Your task to perform on an android device: Open calendar and show me the second week of next month Image 0: 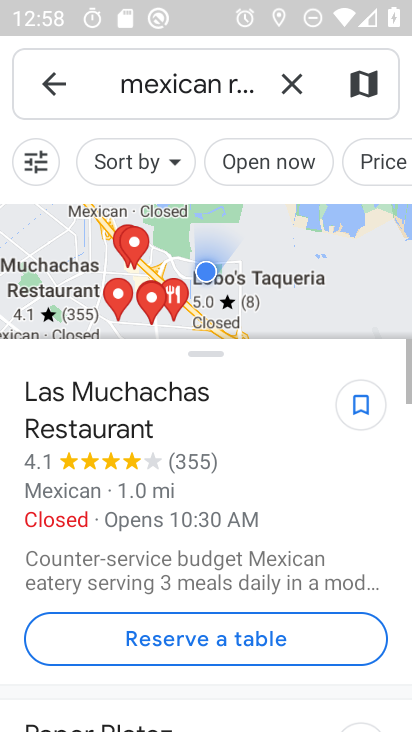
Step 0: drag from (261, 573) to (301, 110)
Your task to perform on an android device: Open calendar and show me the second week of next month Image 1: 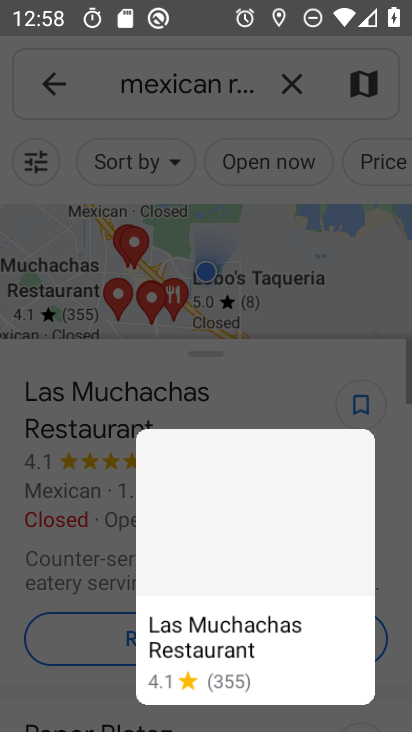
Step 1: press back button
Your task to perform on an android device: Open calendar and show me the second week of next month Image 2: 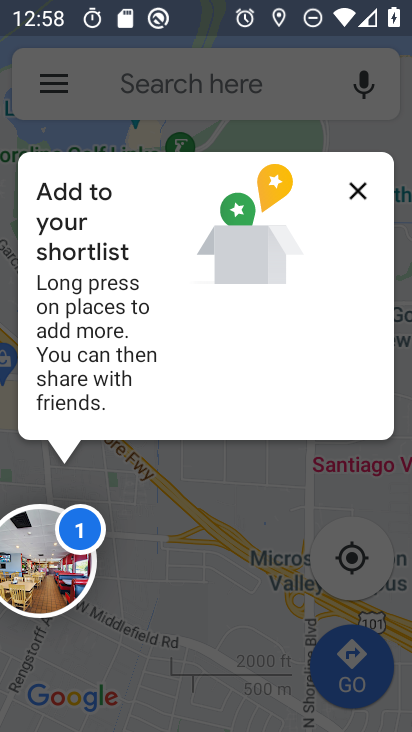
Step 2: press back button
Your task to perform on an android device: Open calendar and show me the second week of next month Image 3: 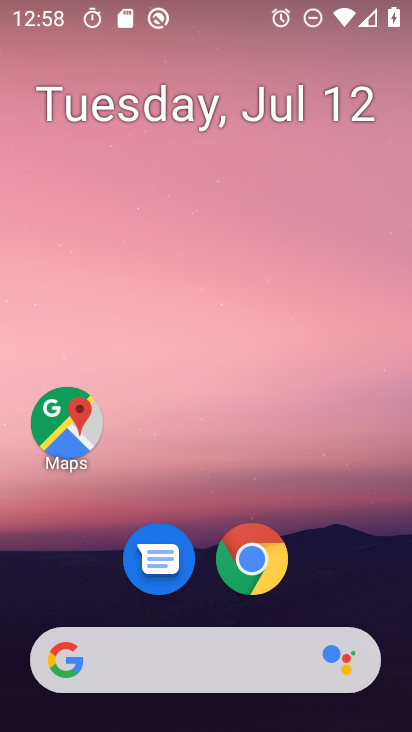
Step 3: drag from (158, 556) to (207, 10)
Your task to perform on an android device: Open calendar and show me the second week of next month Image 4: 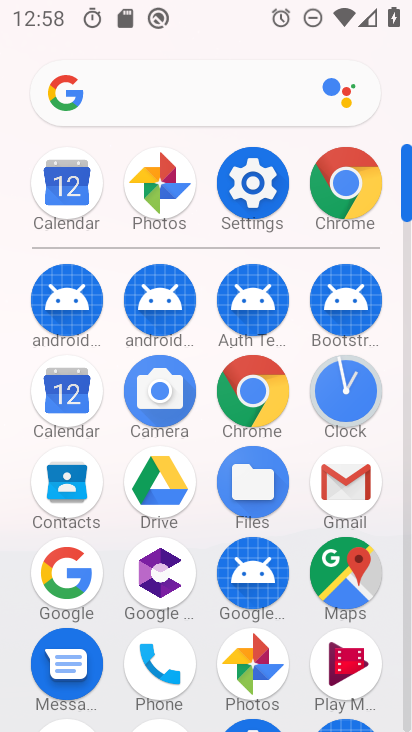
Step 4: click (64, 409)
Your task to perform on an android device: Open calendar and show me the second week of next month Image 5: 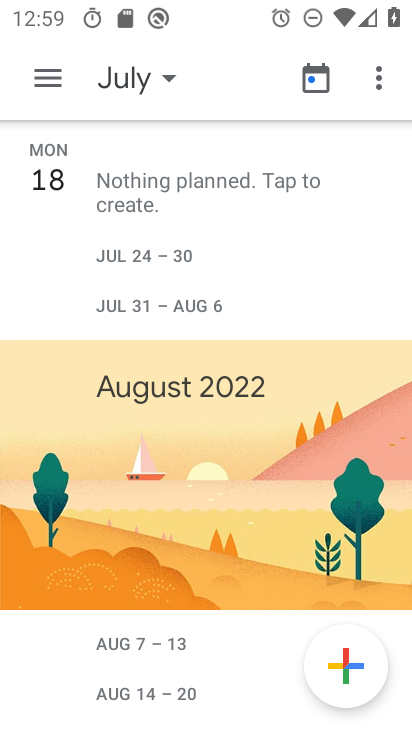
Step 5: click (153, 80)
Your task to perform on an android device: Open calendar and show me the second week of next month Image 6: 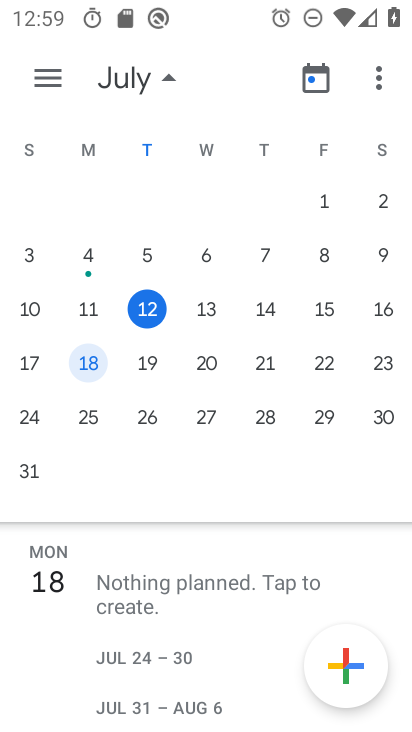
Step 6: drag from (329, 351) to (1, 307)
Your task to perform on an android device: Open calendar and show me the second week of next month Image 7: 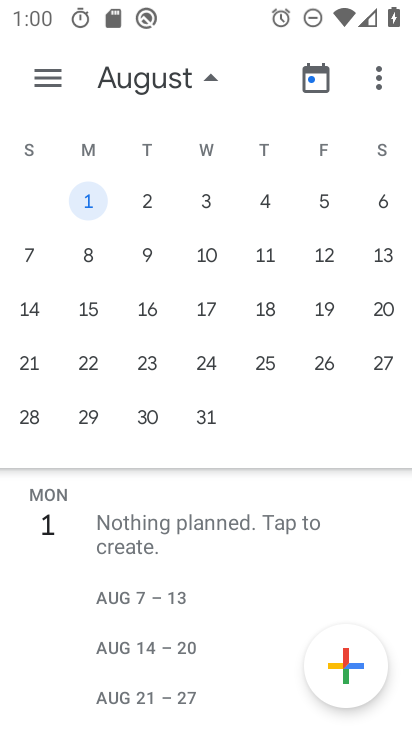
Step 7: click (92, 255)
Your task to perform on an android device: Open calendar and show me the second week of next month Image 8: 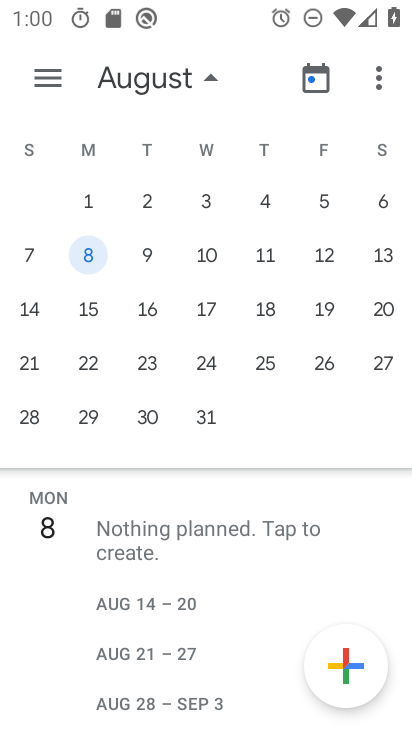
Step 8: task complete